Your task to perform on an android device: open sync settings in chrome Image 0: 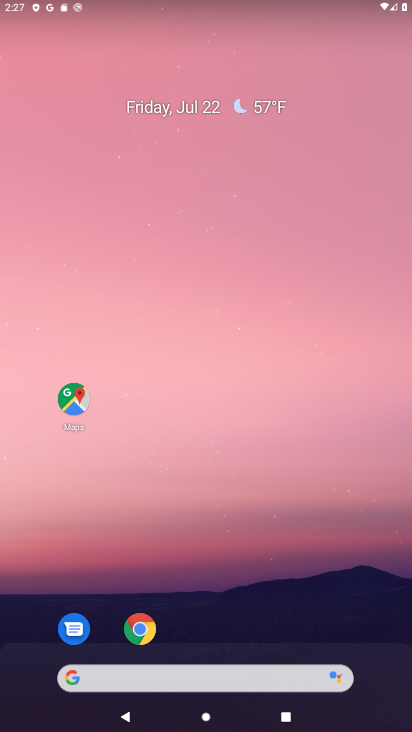
Step 0: click (147, 622)
Your task to perform on an android device: open sync settings in chrome Image 1: 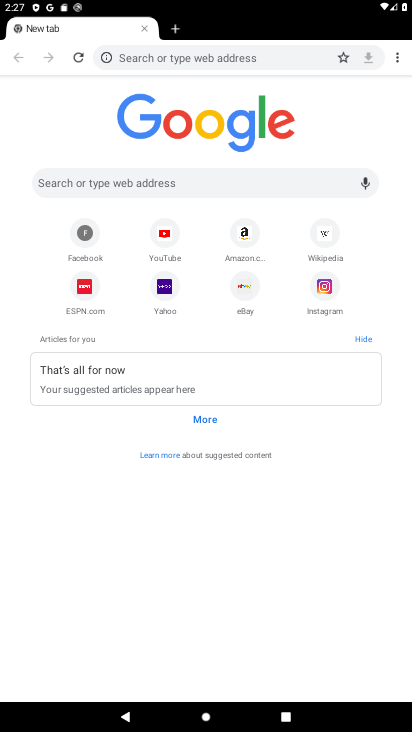
Step 1: click (394, 62)
Your task to perform on an android device: open sync settings in chrome Image 2: 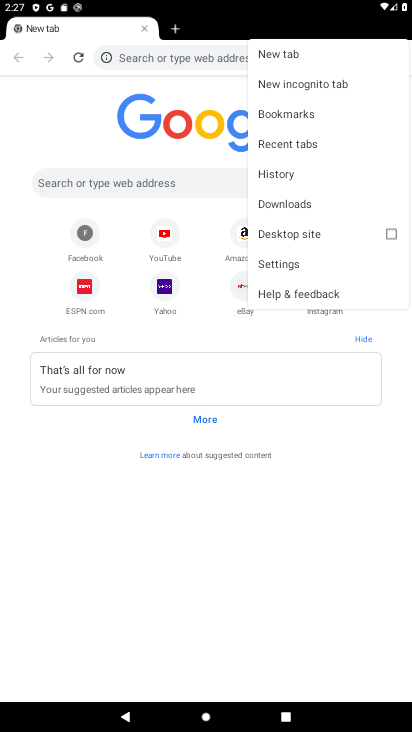
Step 2: click (274, 266)
Your task to perform on an android device: open sync settings in chrome Image 3: 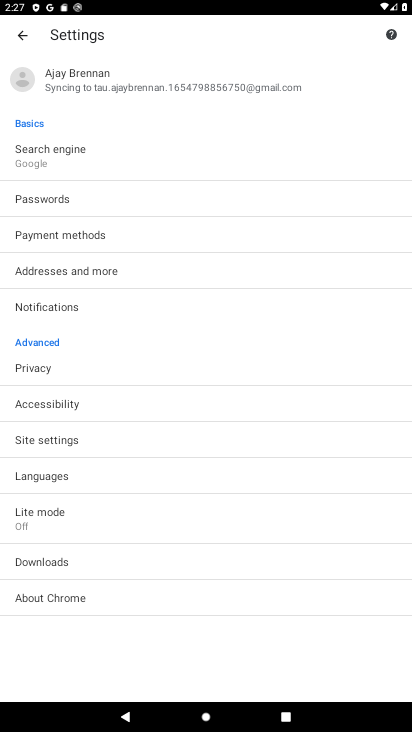
Step 3: click (126, 435)
Your task to perform on an android device: open sync settings in chrome Image 4: 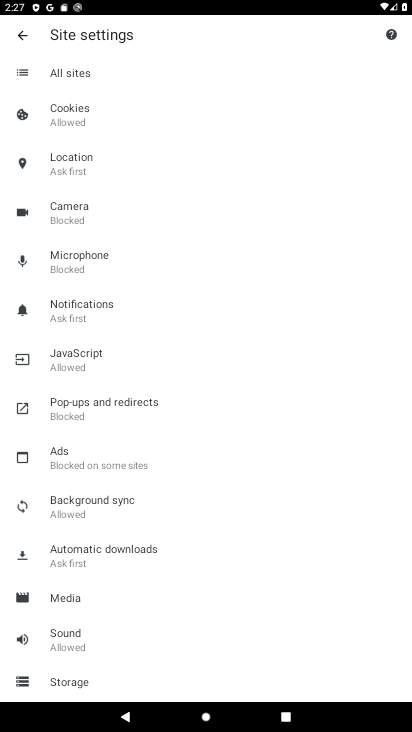
Step 4: click (105, 510)
Your task to perform on an android device: open sync settings in chrome Image 5: 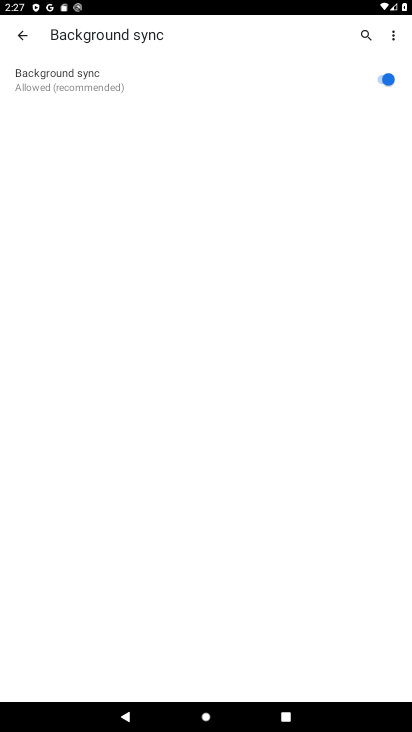
Step 5: task complete